Your task to perform on an android device: turn off location Image 0: 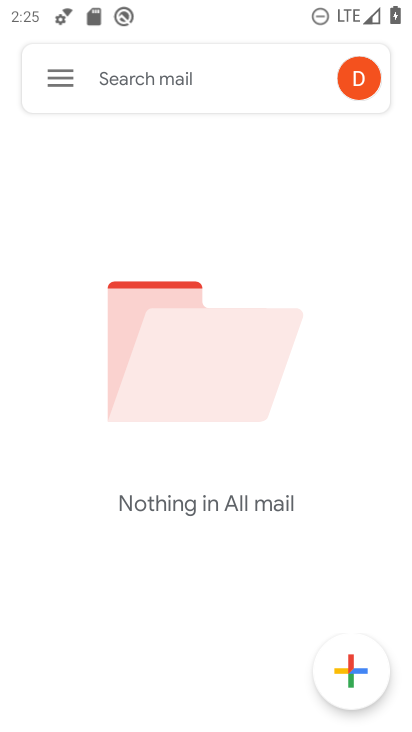
Step 0: press home button
Your task to perform on an android device: turn off location Image 1: 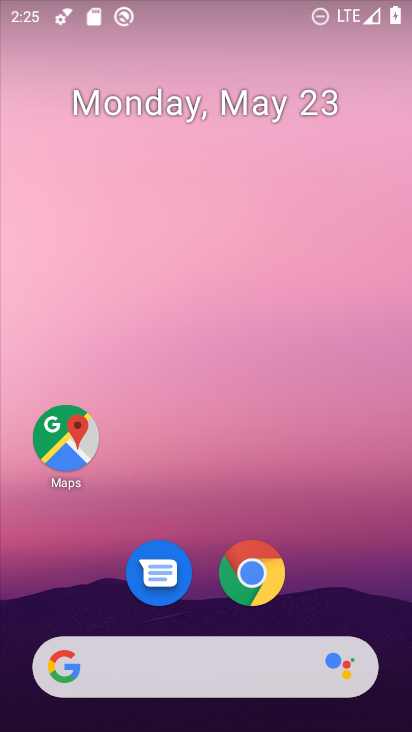
Step 1: drag from (334, 551) to (289, 92)
Your task to perform on an android device: turn off location Image 2: 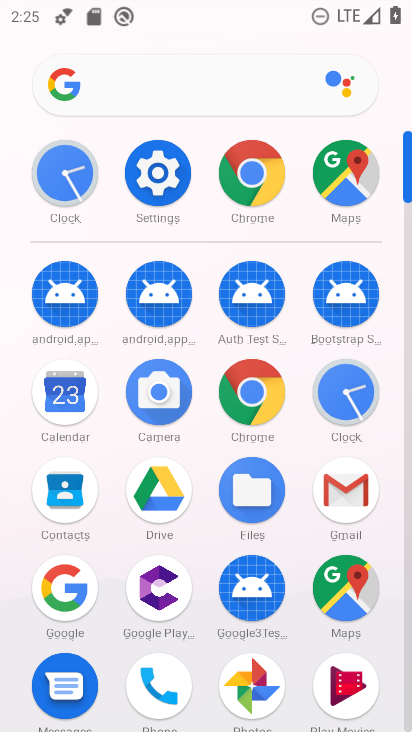
Step 2: click (149, 167)
Your task to perform on an android device: turn off location Image 3: 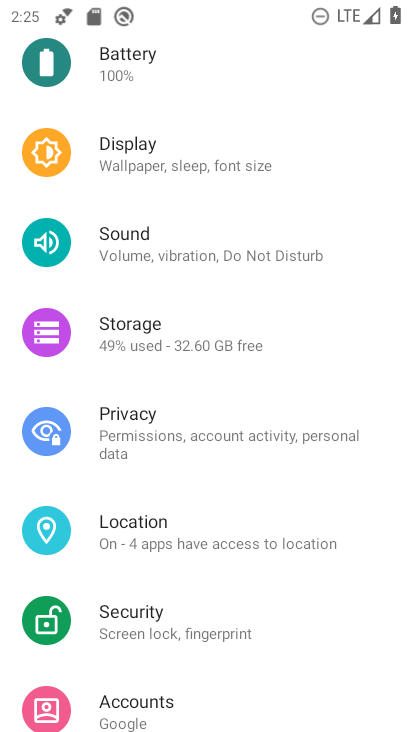
Step 3: drag from (261, 155) to (205, 485)
Your task to perform on an android device: turn off location Image 4: 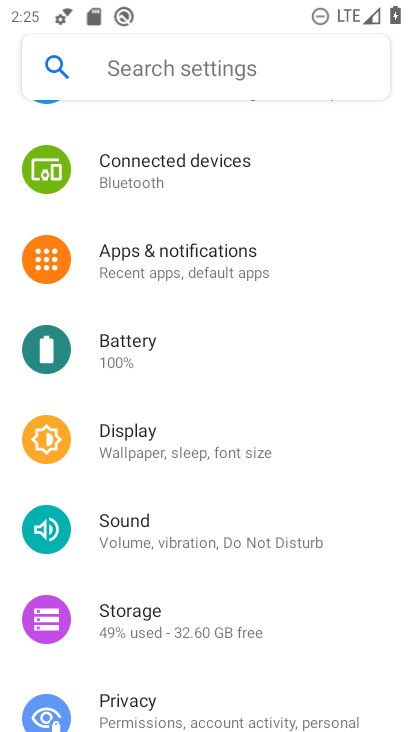
Step 4: drag from (209, 532) to (265, 80)
Your task to perform on an android device: turn off location Image 5: 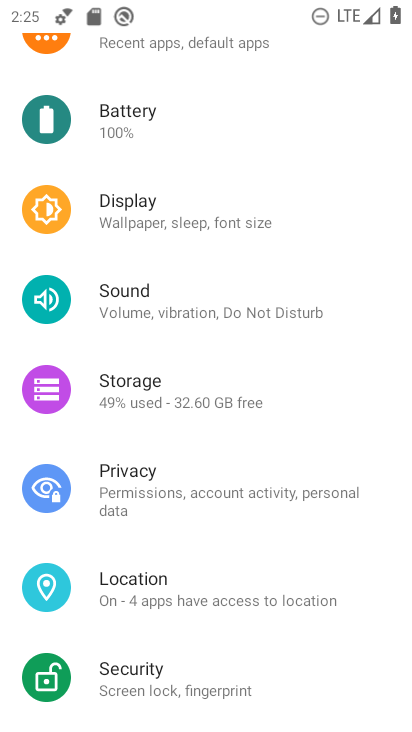
Step 5: click (145, 574)
Your task to perform on an android device: turn off location Image 6: 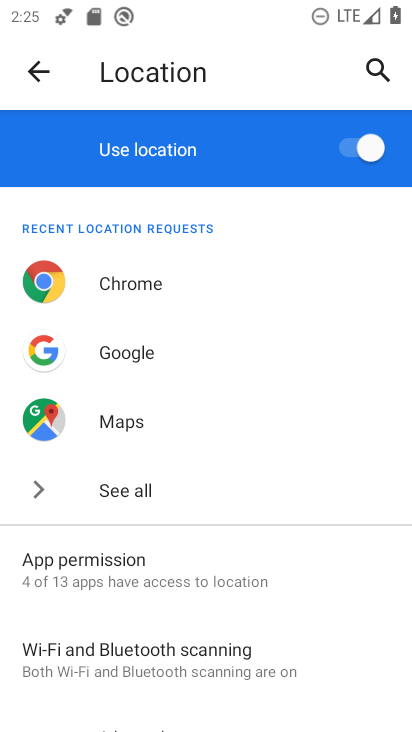
Step 6: click (359, 150)
Your task to perform on an android device: turn off location Image 7: 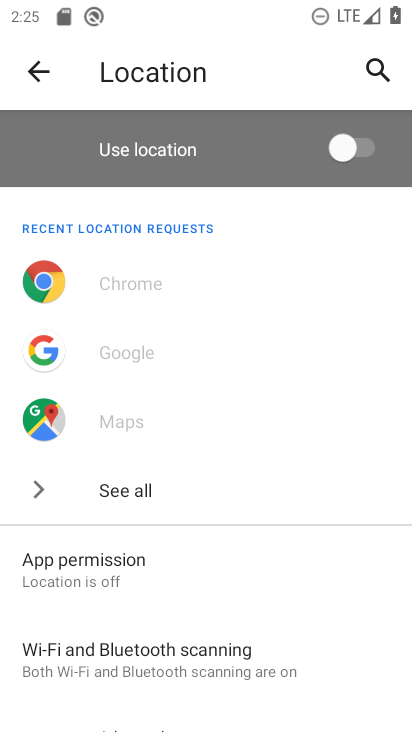
Step 7: task complete